Your task to perform on an android device: Go to battery settings Image 0: 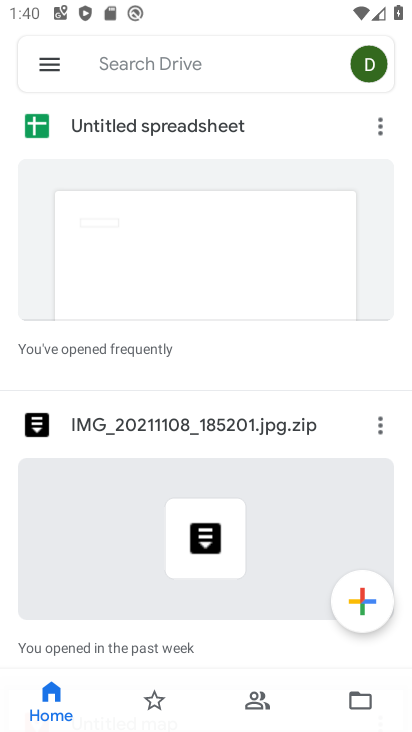
Step 0: press home button
Your task to perform on an android device: Go to battery settings Image 1: 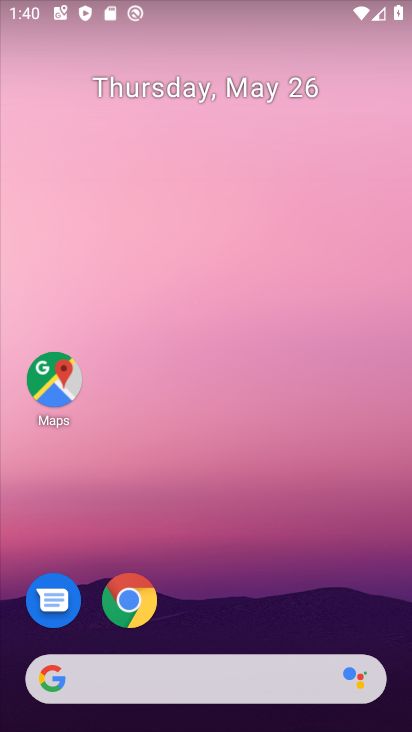
Step 1: drag from (248, 593) to (269, 124)
Your task to perform on an android device: Go to battery settings Image 2: 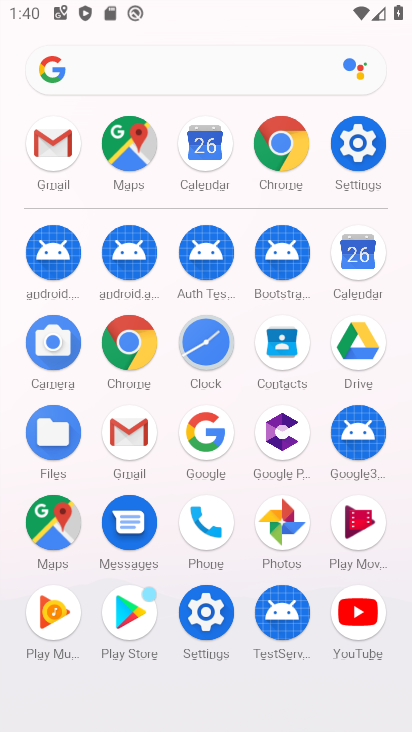
Step 2: click (361, 124)
Your task to perform on an android device: Go to battery settings Image 3: 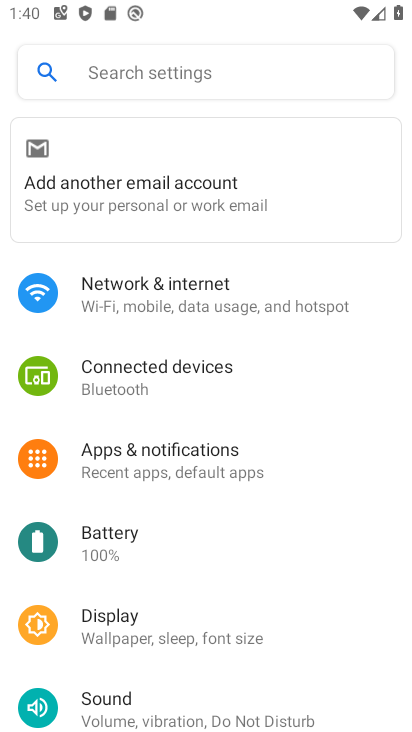
Step 3: click (109, 560)
Your task to perform on an android device: Go to battery settings Image 4: 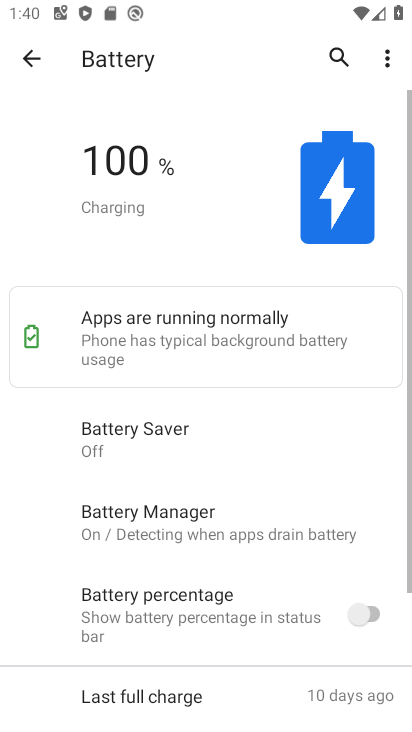
Step 4: task complete